Your task to perform on an android device: change your default location settings in chrome Image 0: 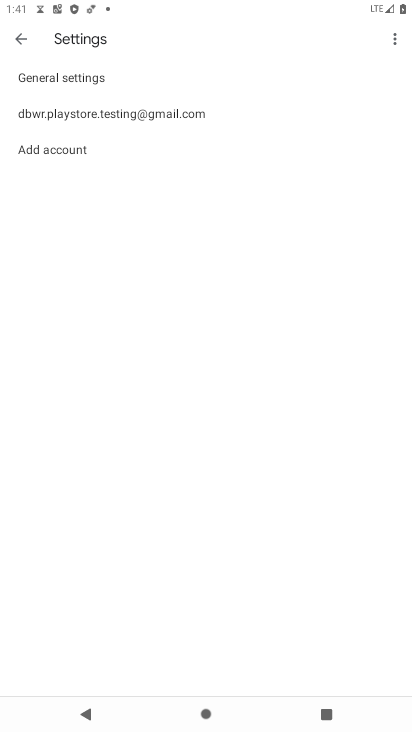
Step 0: press home button
Your task to perform on an android device: change your default location settings in chrome Image 1: 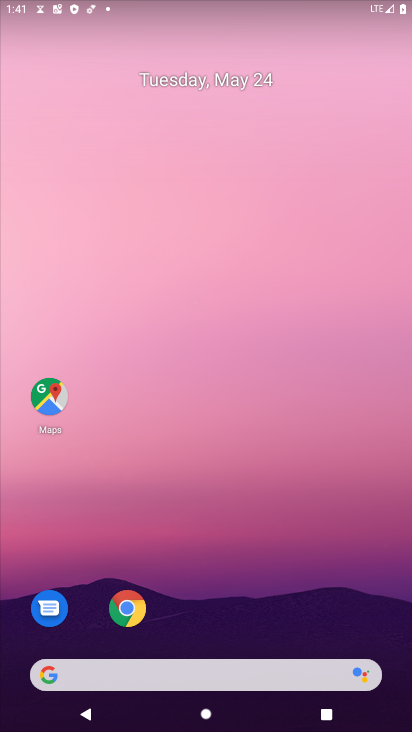
Step 1: drag from (257, 615) to (209, 181)
Your task to perform on an android device: change your default location settings in chrome Image 2: 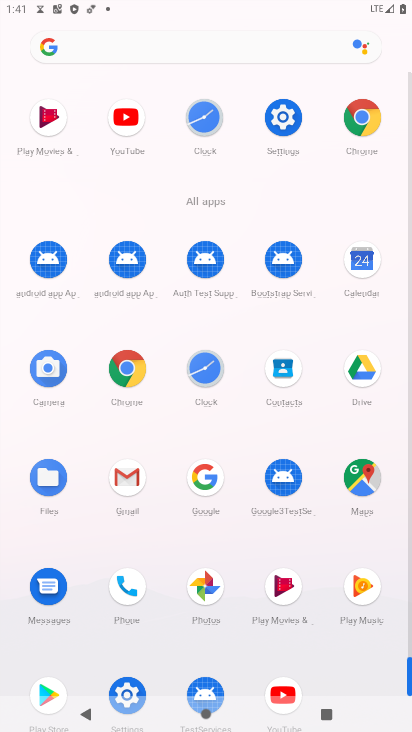
Step 2: click (363, 126)
Your task to perform on an android device: change your default location settings in chrome Image 3: 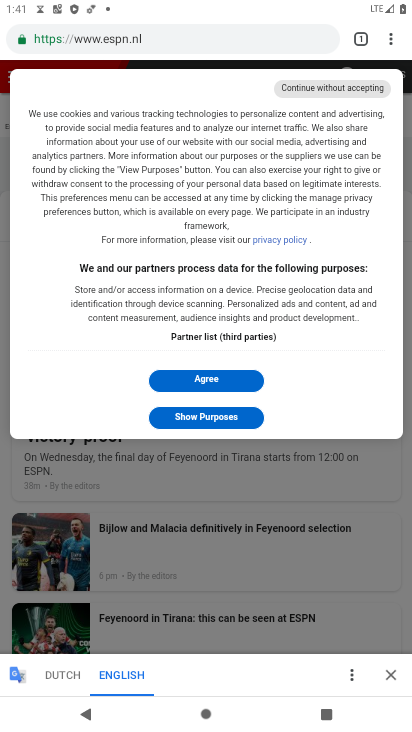
Step 3: click (394, 39)
Your task to perform on an android device: change your default location settings in chrome Image 4: 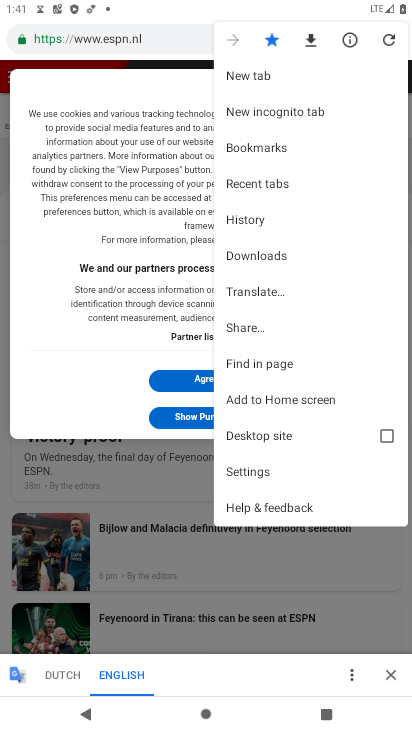
Step 4: click (276, 471)
Your task to perform on an android device: change your default location settings in chrome Image 5: 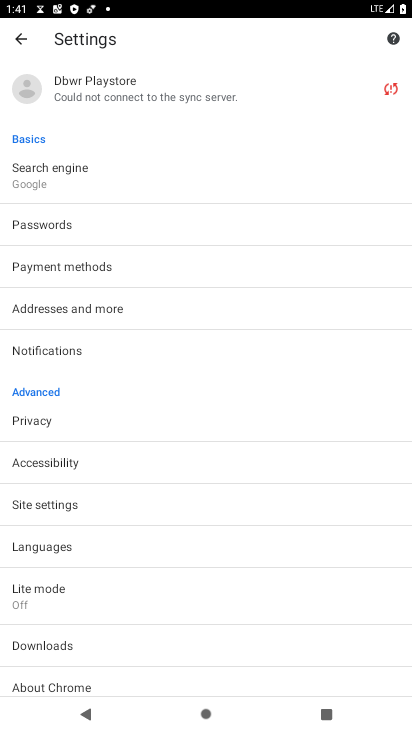
Step 5: click (124, 504)
Your task to perform on an android device: change your default location settings in chrome Image 6: 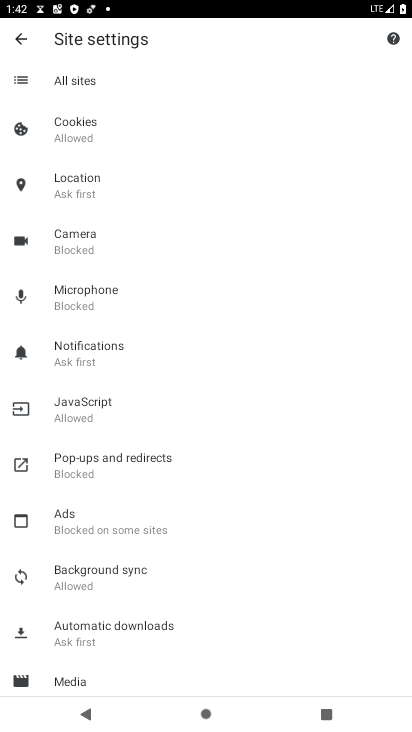
Step 6: click (124, 180)
Your task to perform on an android device: change your default location settings in chrome Image 7: 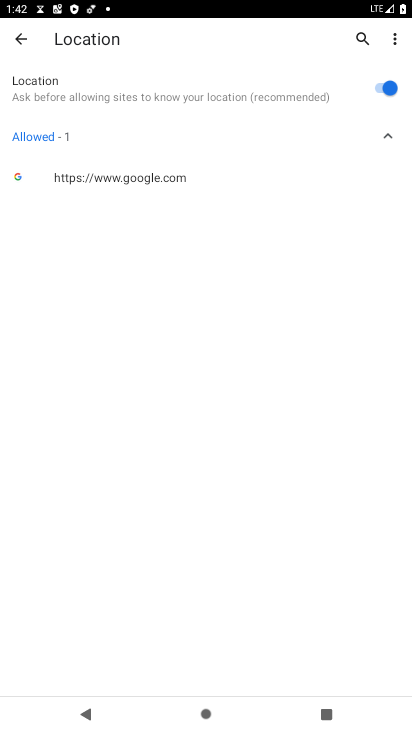
Step 7: task complete